Your task to perform on an android device: turn notification dots on Image 0: 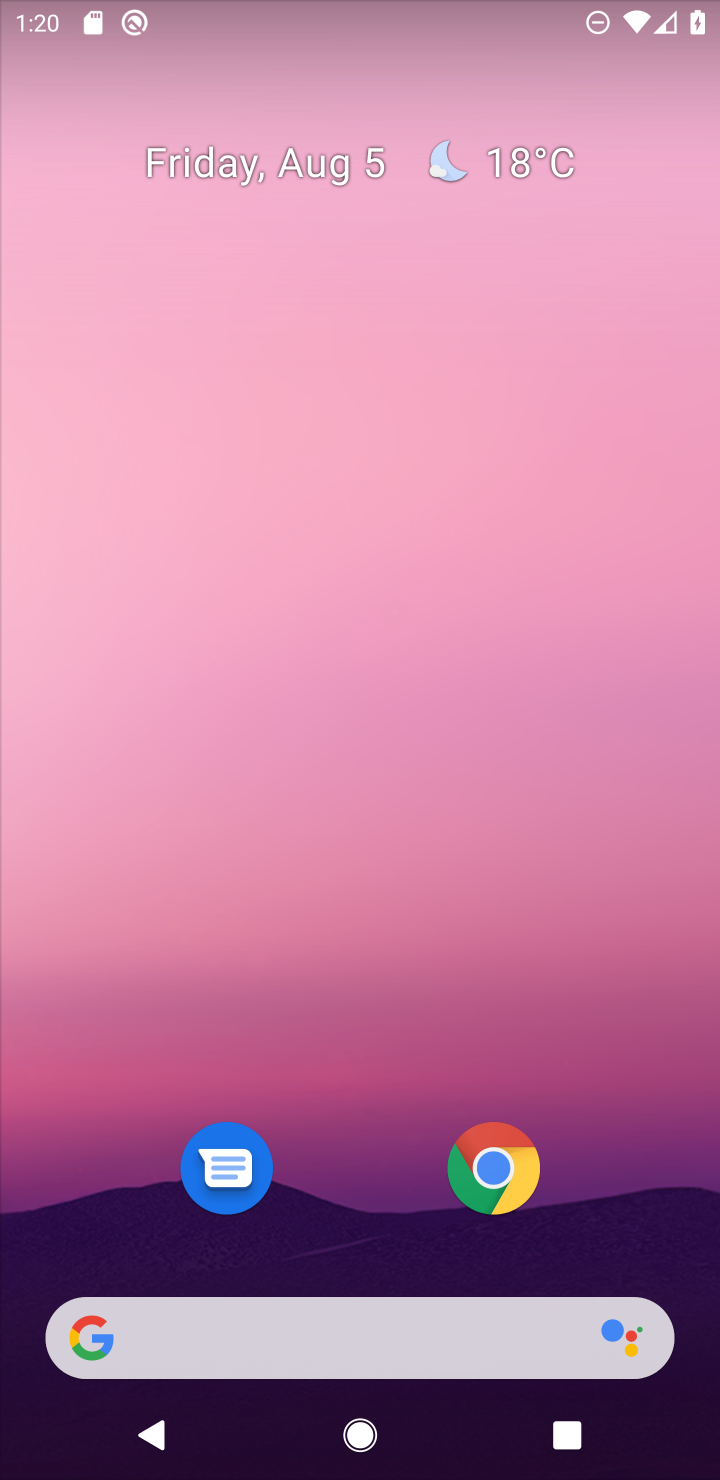
Step 0: drag from (336, 1222) to (319, 9)
Your task to perform on an android device: turn notification dots on Image 1: 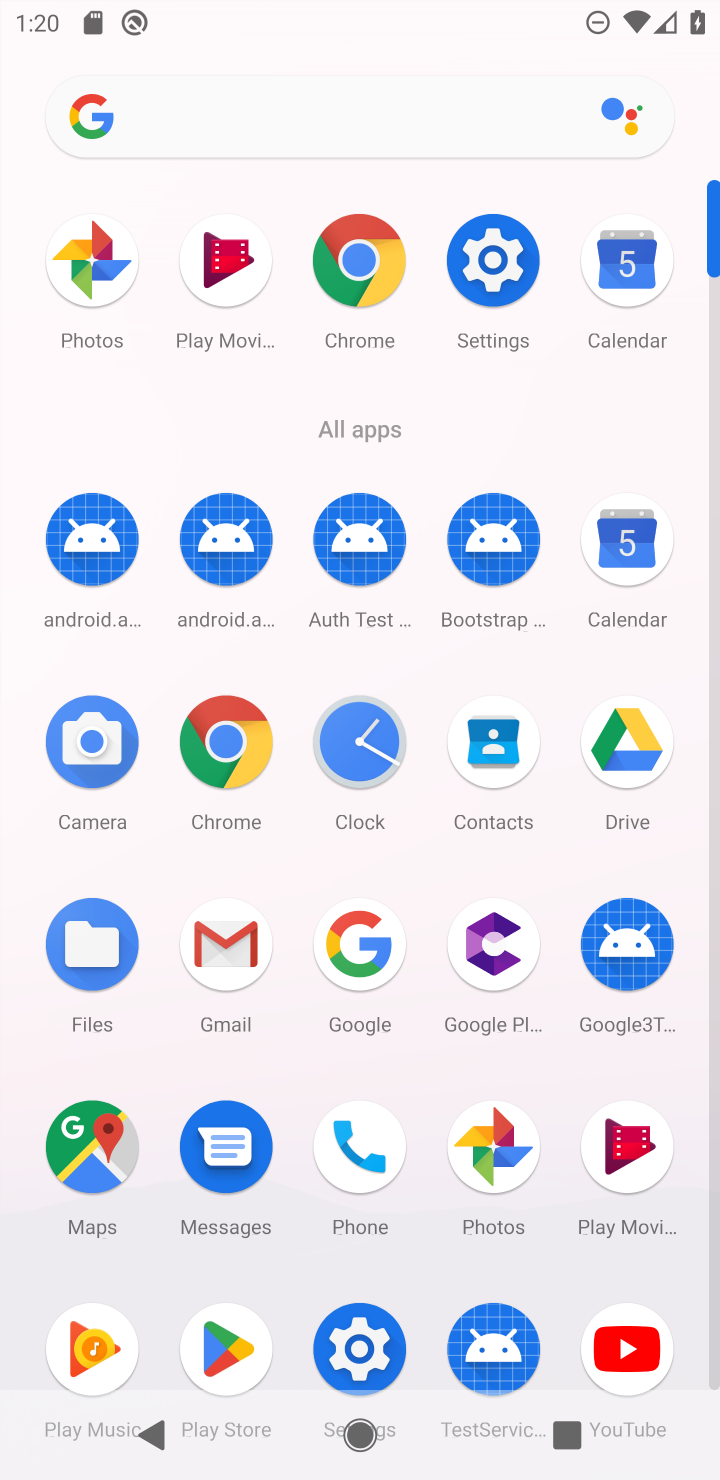
Step 1: click (471, 239)
Your task to perform on an android device: turn notification dots on Image 2: 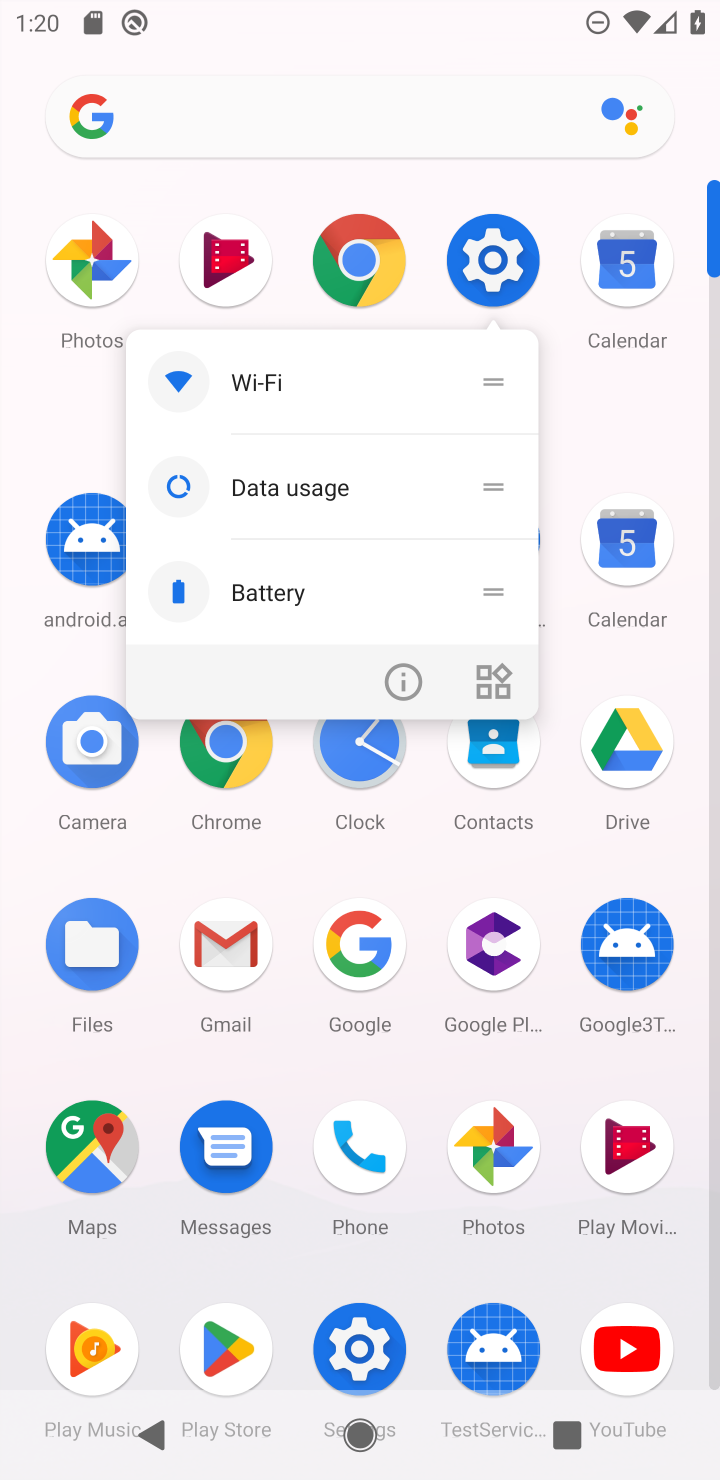
Step 2: click (496, 275)
Your task to perform on an android device: turn notification dots on Image 3: 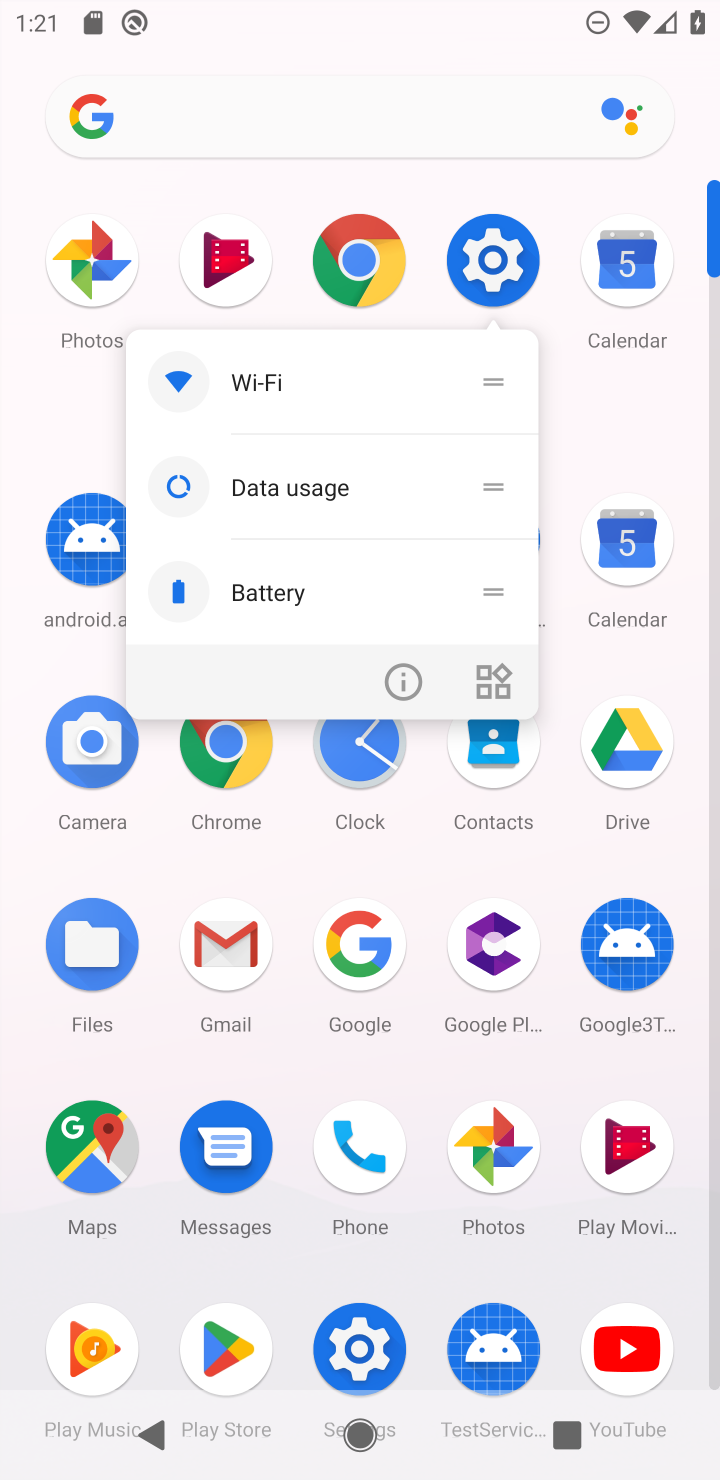
Step 3: click (479, 238)
Your task to perform on an android device: turn notification dots on Image 4: 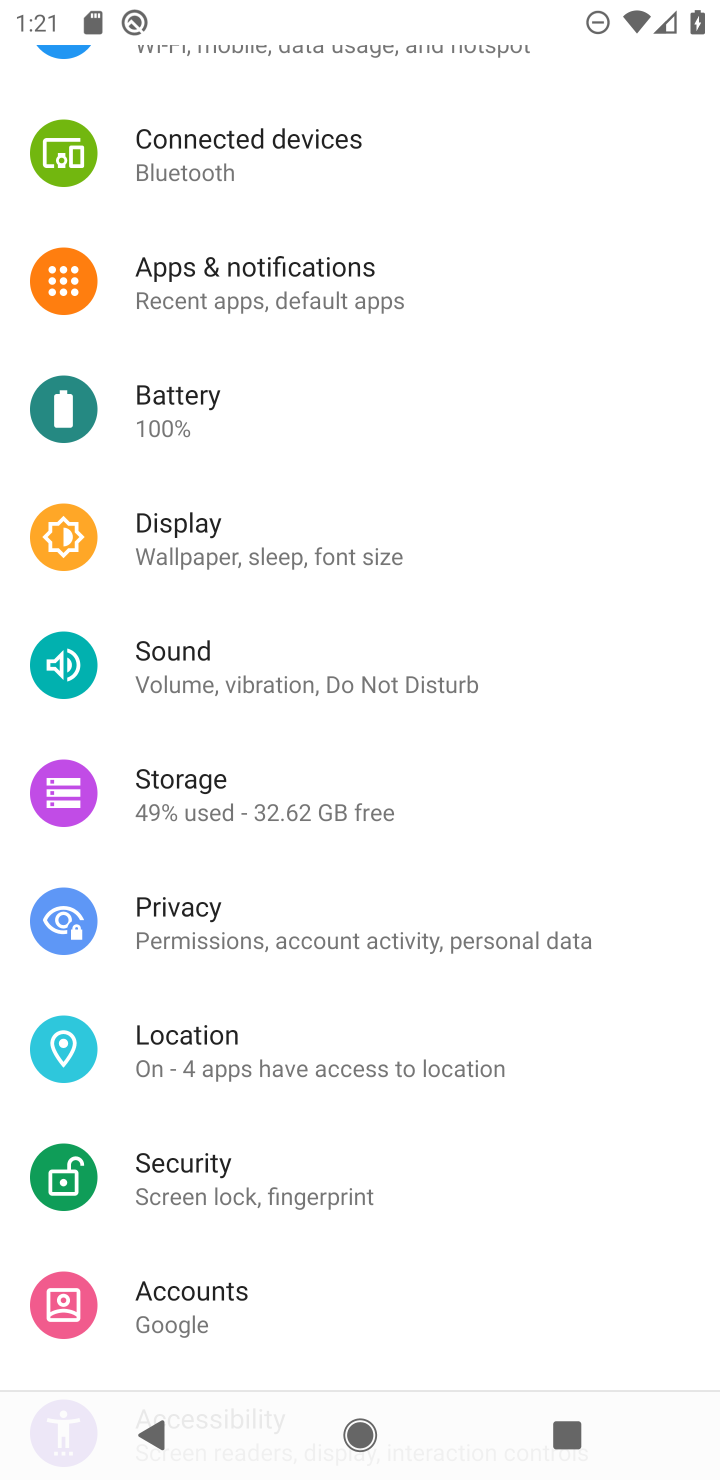
Step 4: click (360, 287)
Your task to perform on an android device: turn notification dots on Image 5: 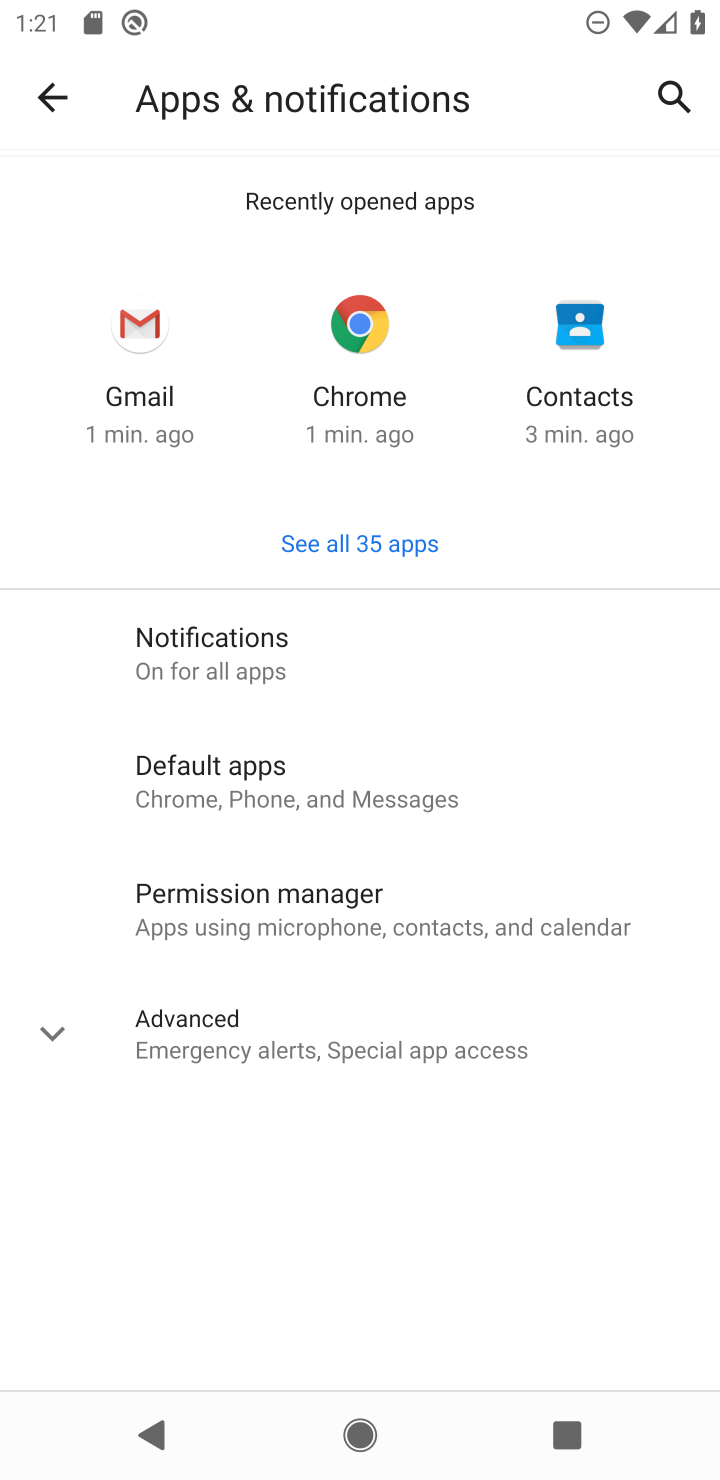
Step 5: click (299, 660)
Your task to perform on an android device: turn notification dots on Image 6: 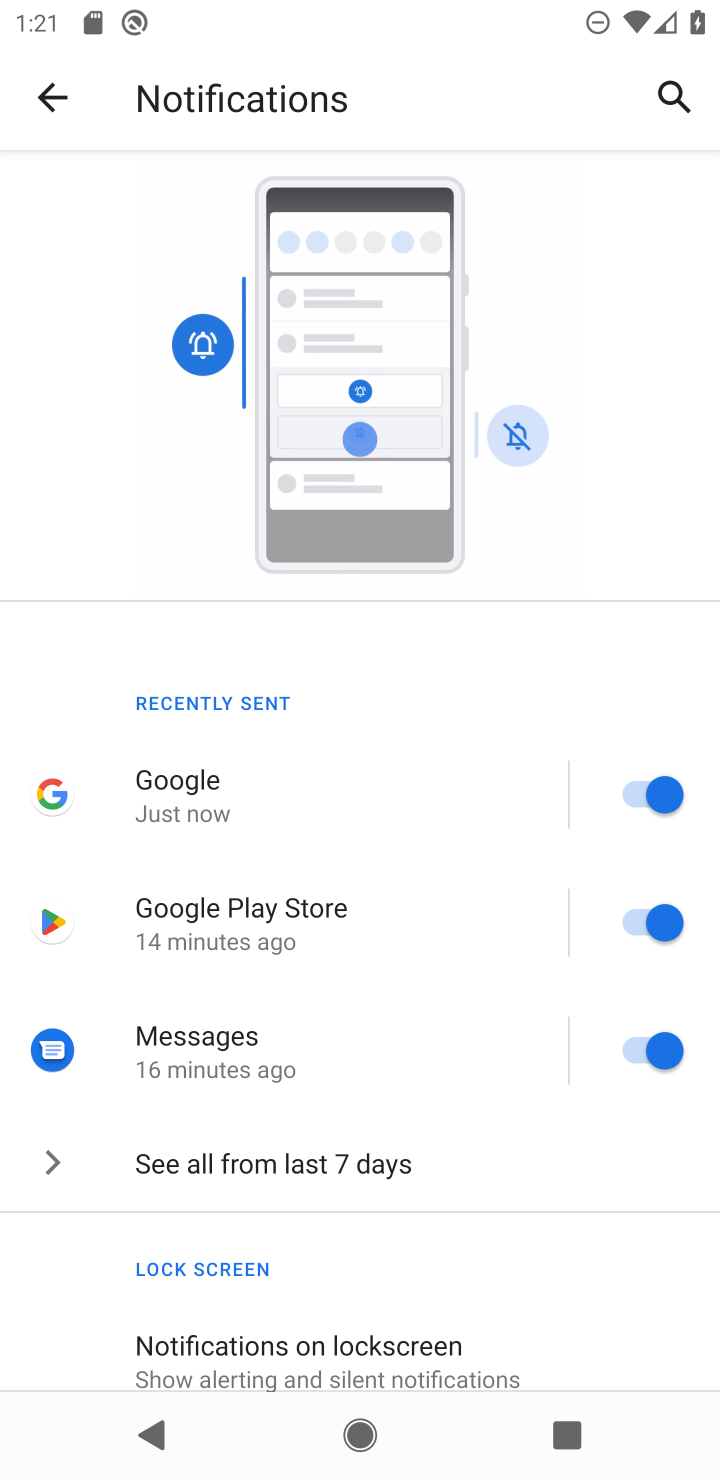
Step 6: drag from (345, 1241) to (405, 243)
Your task to perform on an android device: turn notification dots on Image 7: 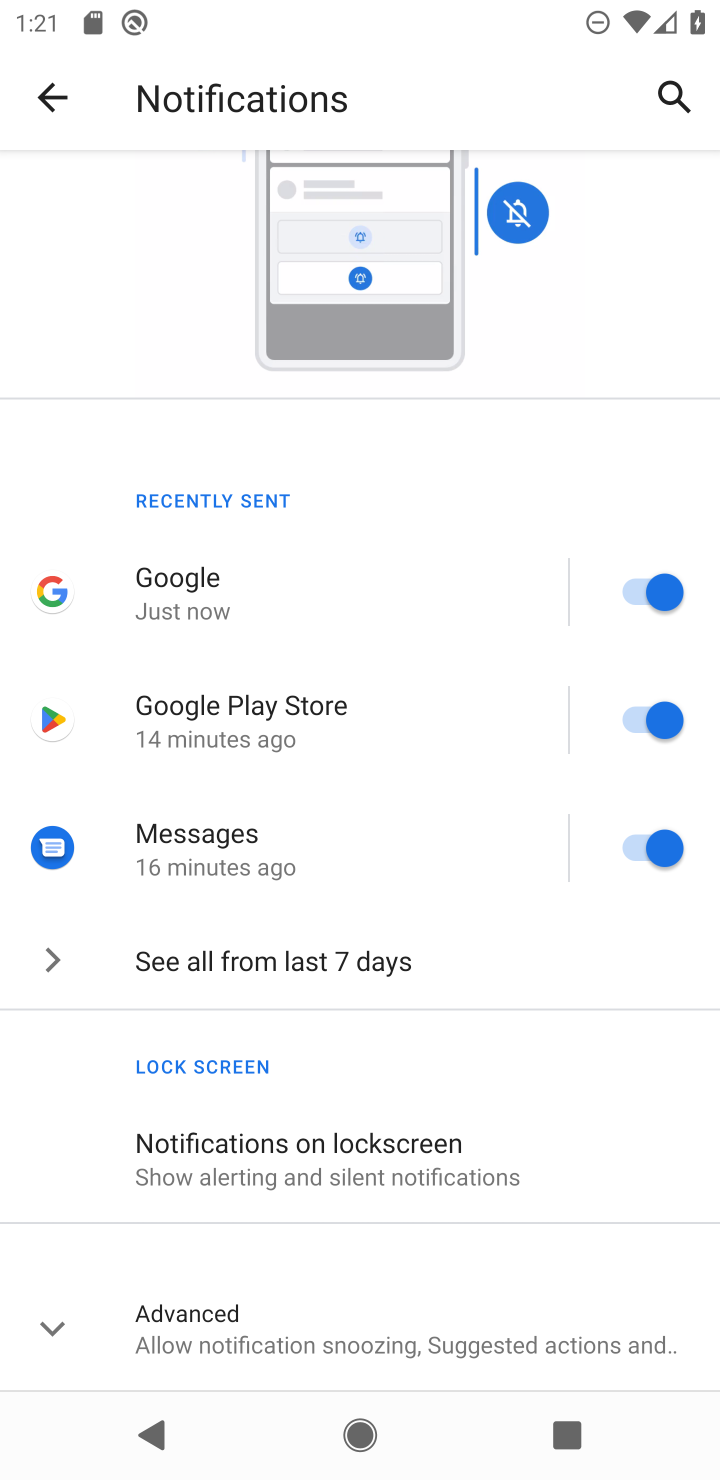
Step 7: click (313, 1371)
Your task to perform on an android device: turn notification dots on Image 8: 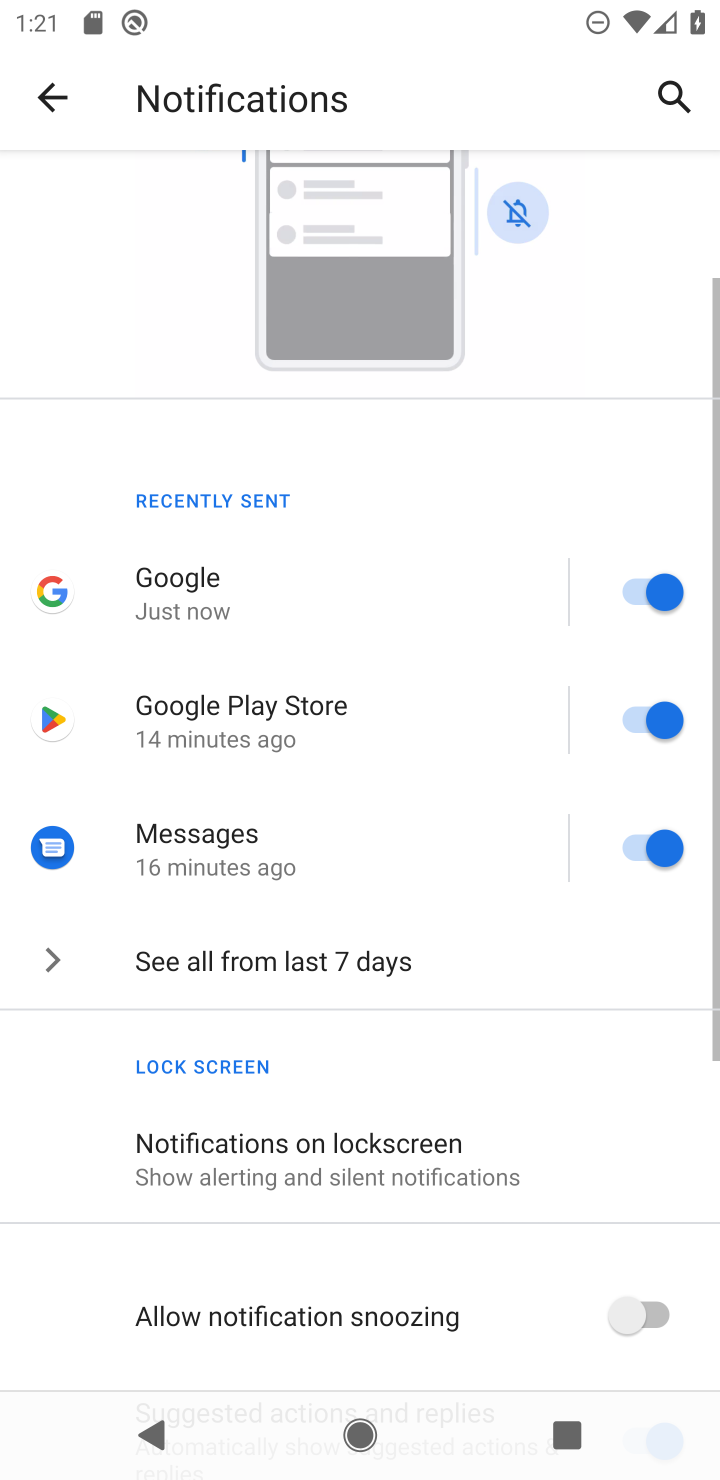
Step 8: task complete